Your task to perform on an android device: Open Reddit.com Image 0: 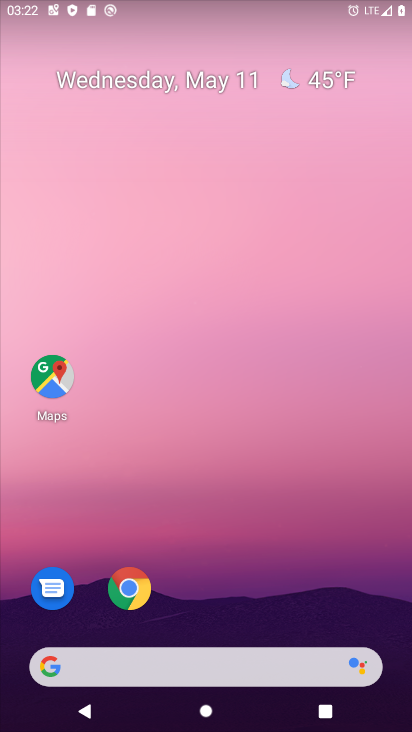
Step 0: click (119, 596)
Your task to perform on an android device: Open Reddit.com Image 1: 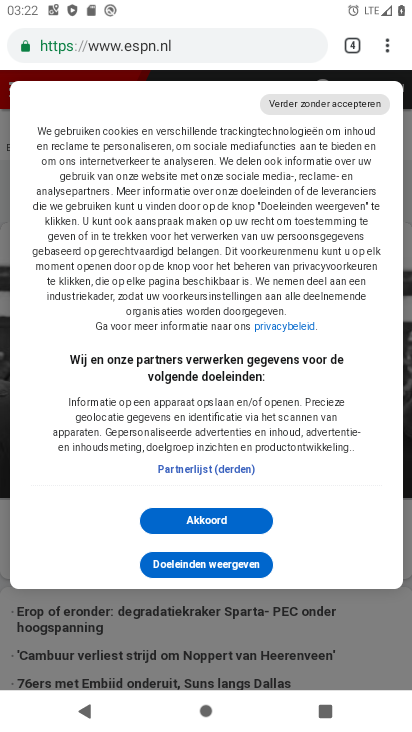
Step 1: click (264, 523)
Your task to perform on an android device: Open Reddit.com Image 2: 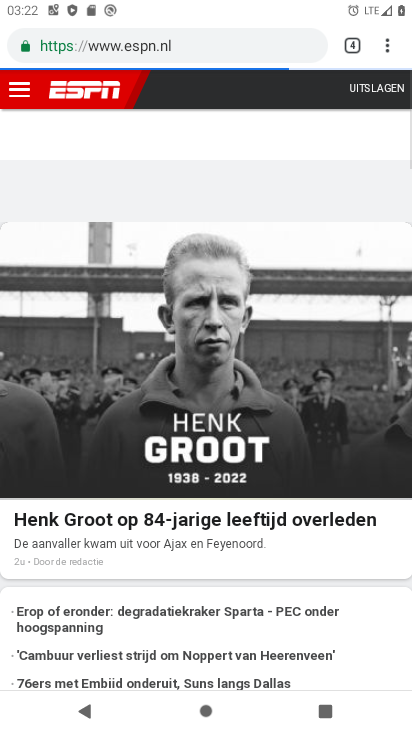
Step 2: click (347, 41)
Your task to perform on an android device: Open Reddit.com Image 3: 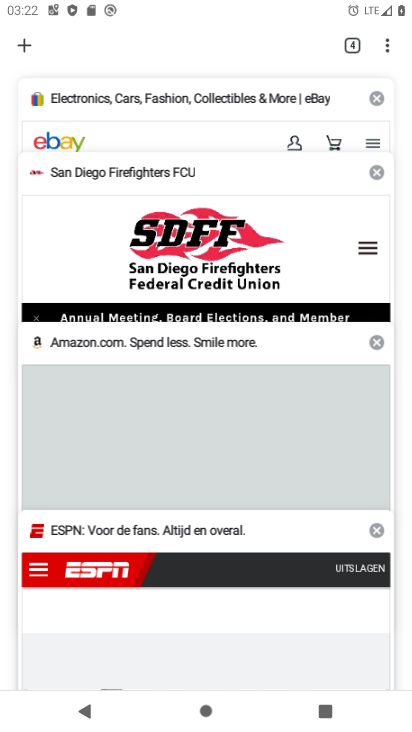
Step 3: click (23, 45)
Your task to perform on an android device: Open Reddit.com Image 4: 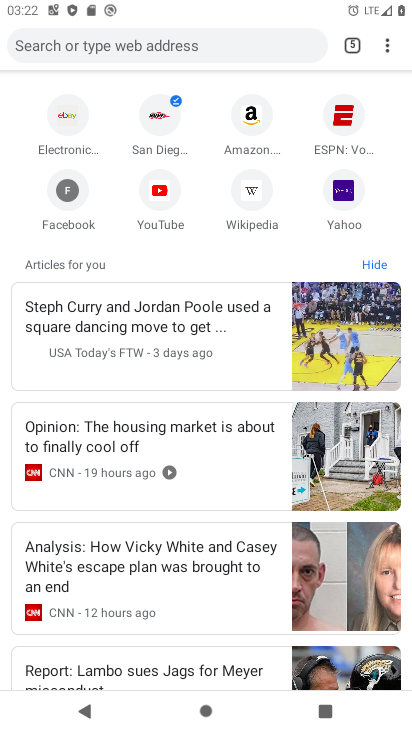
Step 4: click (158, 44)
Your task to perform on an android device: Open Reddit.com Image 5: 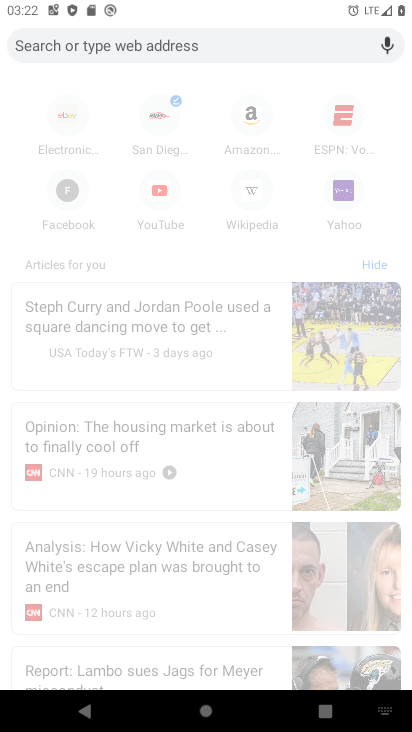
Step 5: type "Reddit.com"
Your task to perform on an android device: Open Reddit.com Image 6: 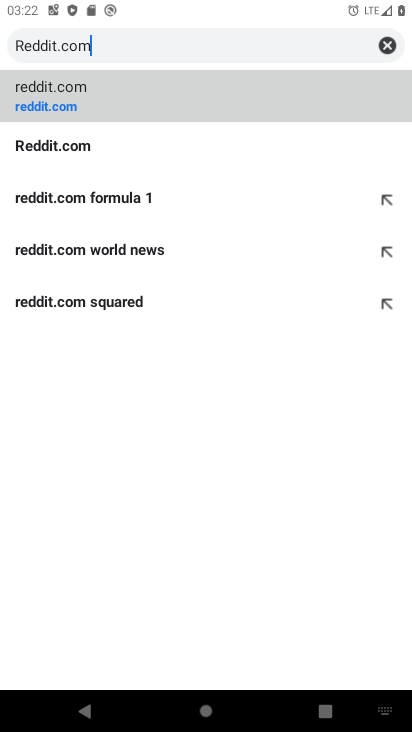
Step 6: click (81, 98)
Your task to perform on an android device: Open Reddit.com Image 7: 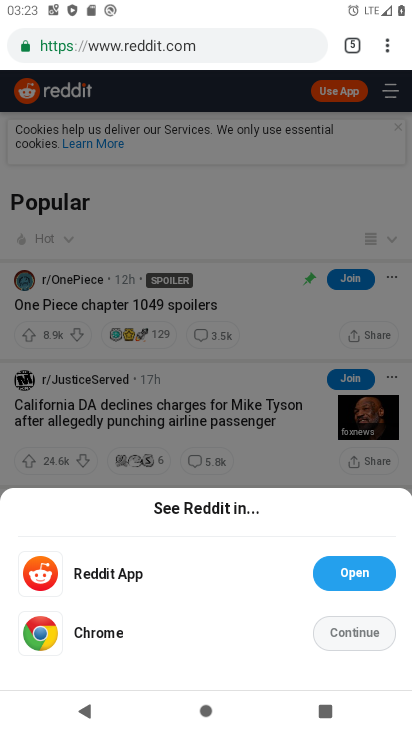
Step 7: task complete